Your task to perform on an android device: open app "Lyft - Rideshare, Bikes, Scooters & Transit" Image 0: 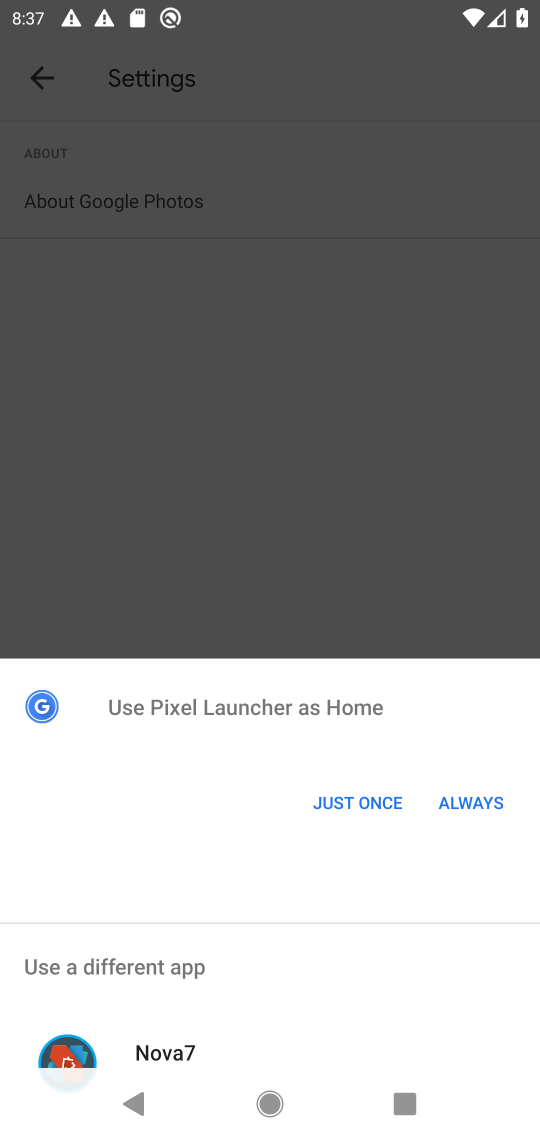
Step 0: click (350, 780)
Your task to perform on an android device: open app "Lyft - Rideshare, Bikes, Scooters & Transit" Image 1: 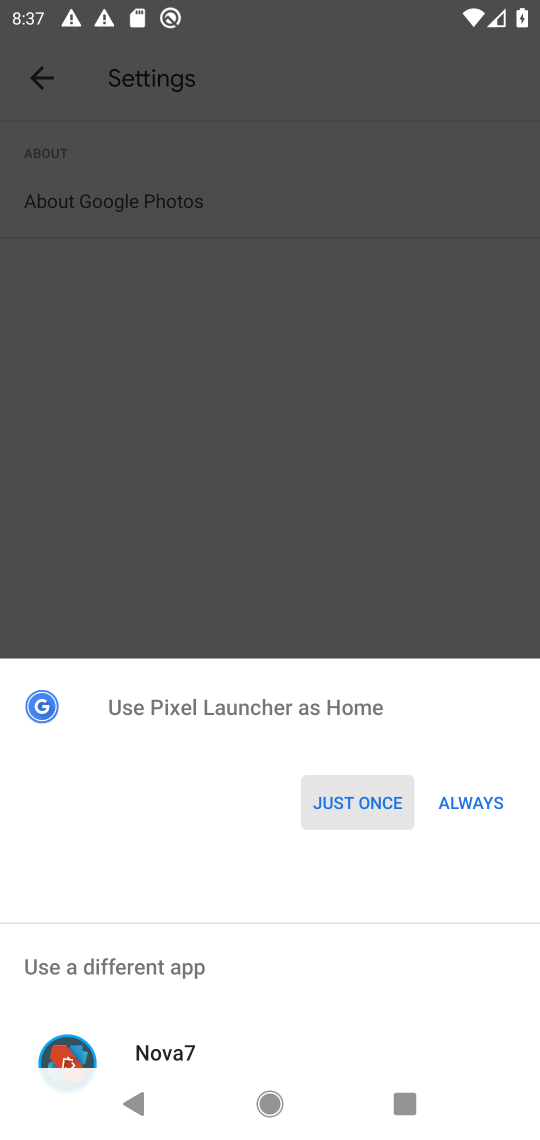
Step 1: click (354, 792)
Your task to perform on an android device: open app "Lyft - Rideshare, Bikes, Scooters & Transit" Image 2: 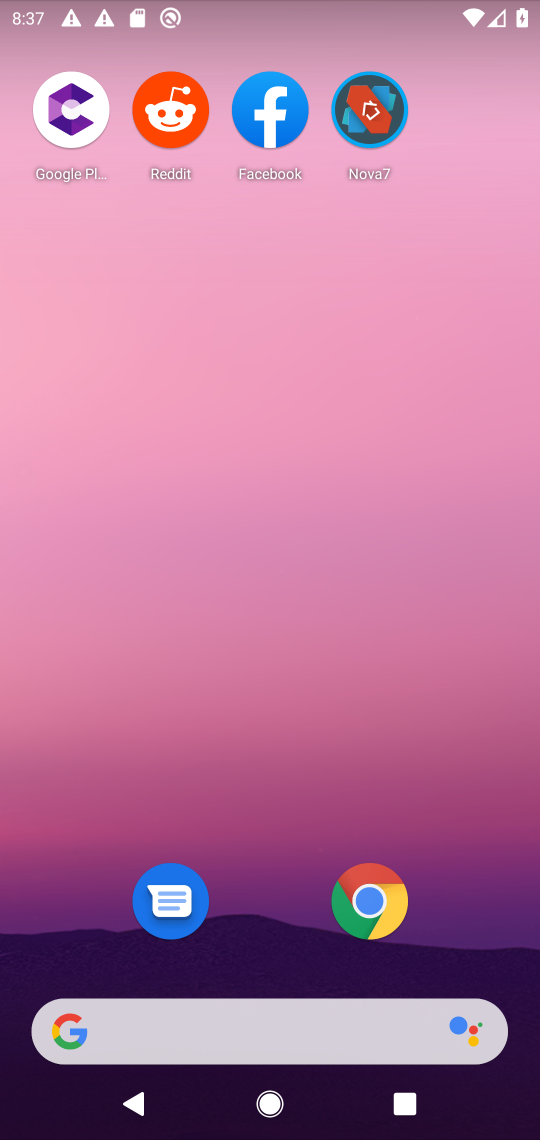
Step 2: drag from (255, 940) to (123, 100)
Your task to perform on an android device: open app "Lyft - Rideshare, Bikes, Scooters & Transit" Image 3: 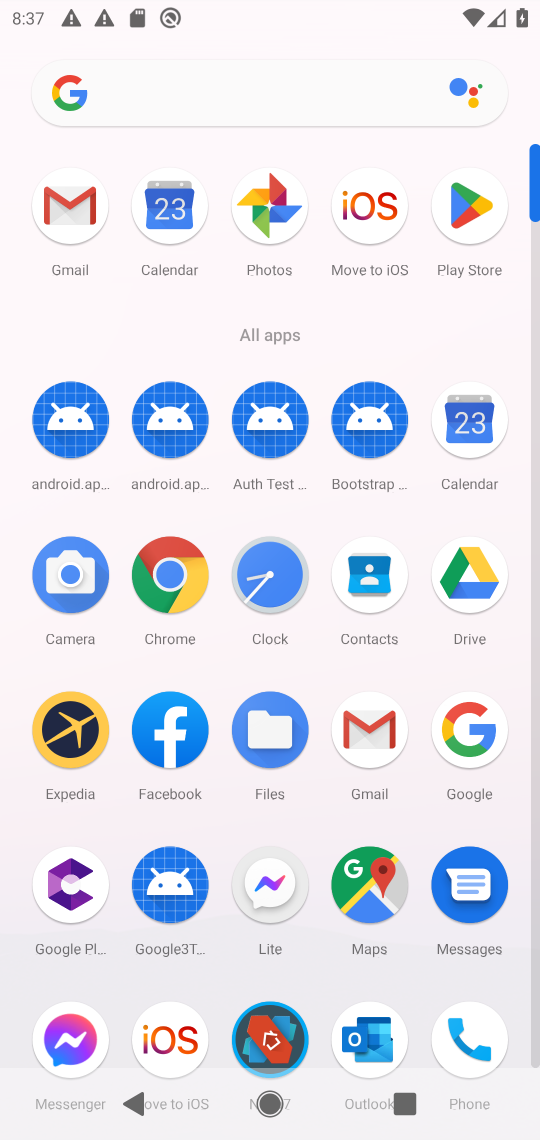
Step 3: click (461, 213)
Your task to perform on an android device: open app "Lyft - Rideshare, Bikes, Scooters & Transit" Image 4: 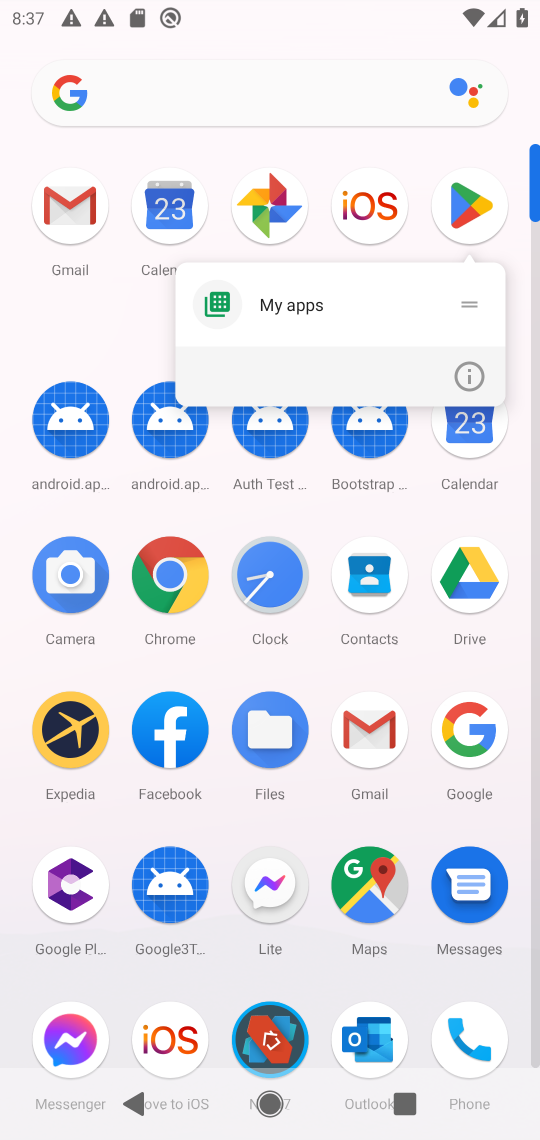
Step 4: click (461, 211)
Your task to perform on an android device: open app "Lyft - Rideshare, Bikes, Scooters & Transit" Image 5: 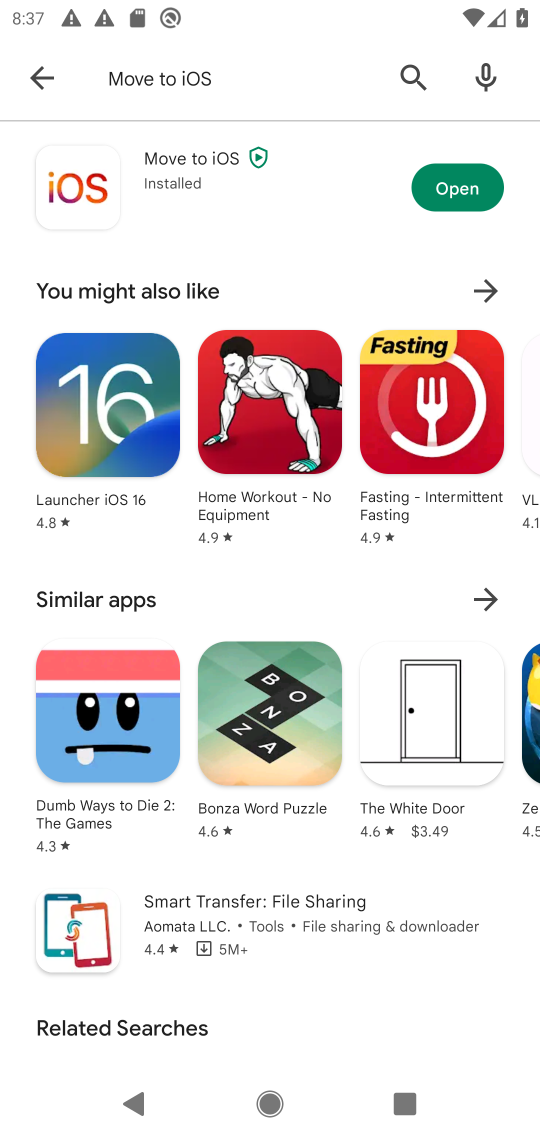
Step 5: click (461, 211)
Your task to perform on an android device: open app "Lyft - Rideshare, Bikes, Scooters & Transit" Image 6: 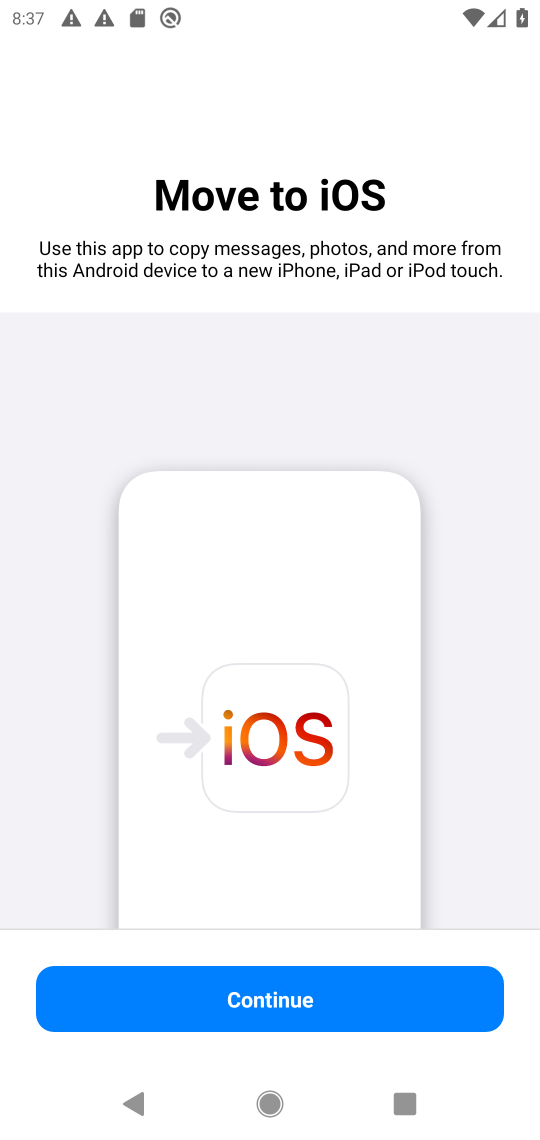
Step 6: press back button
Your task to perform on an android device: open app "Lyft - Rideshare, Bikes, Scooters & Transit" Image 7: 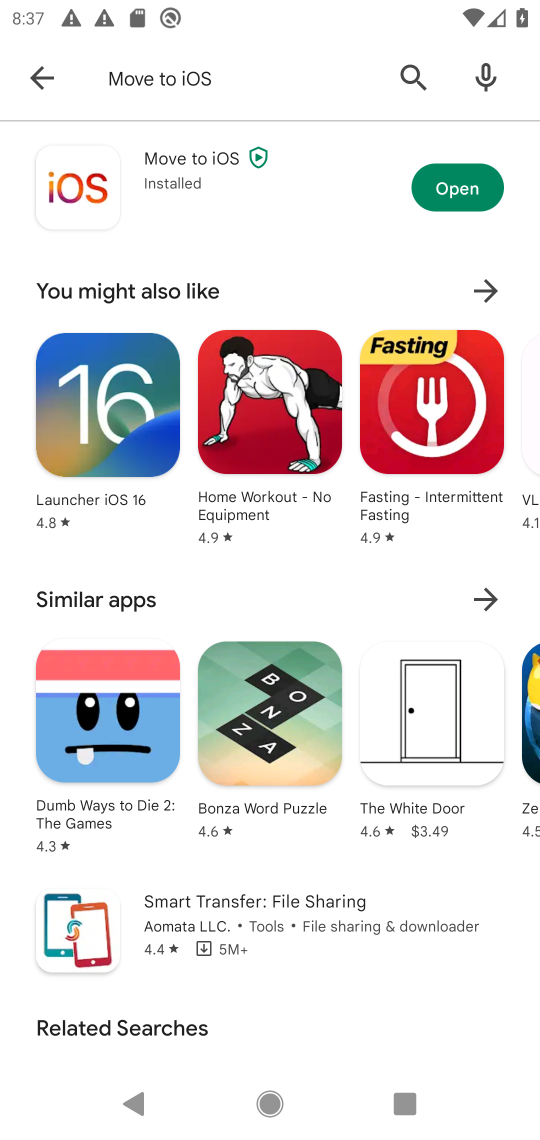
Step 7: press back button
Your task to perform on an android device: open app "Lyft - Rideshare, Bikes, Scooters & Transit" Image 8: 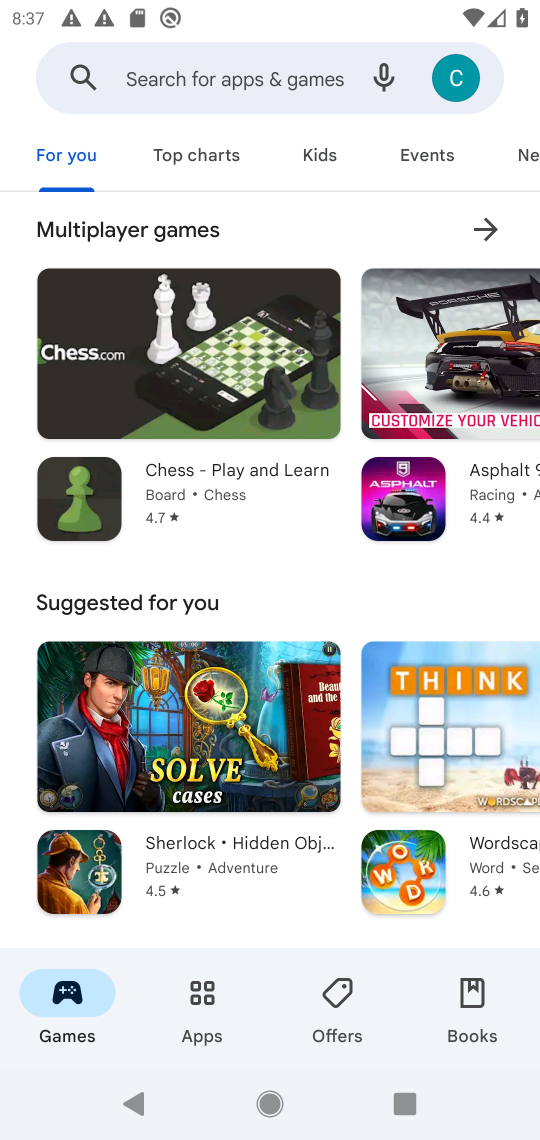
Step 8: click (240, 88)
Your task to perform on an android device: open app "Lyft - Rideshare, Bikes, Scooters & Transit" Image 9: 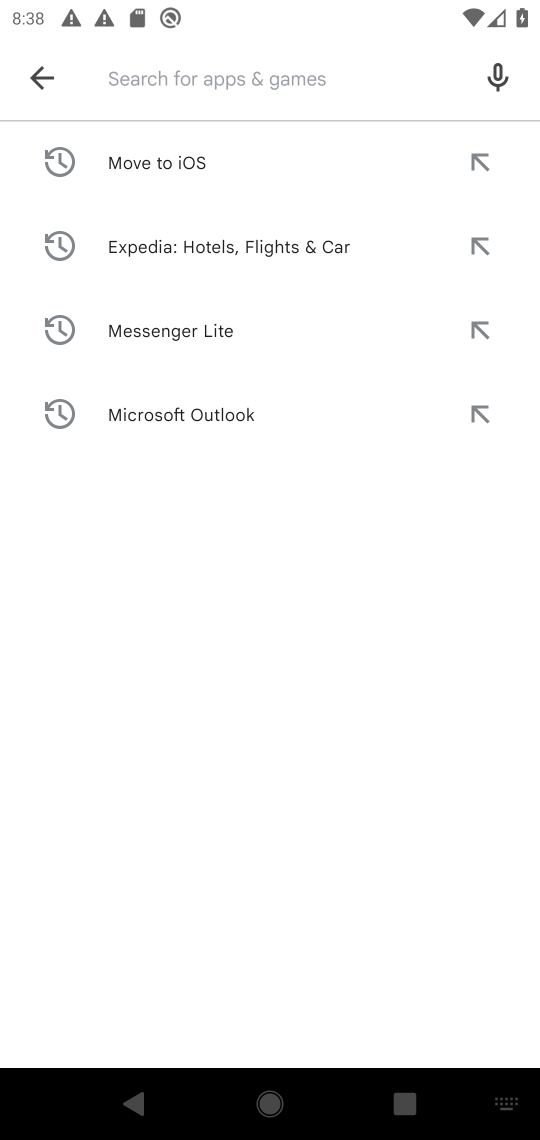
Step 9: type "Lyft - Rideshare, Bikes, Scooters & Transit"
Your task to perform on an android device: open app "Lyft - Rideshare, Bikes, Scooters & Transit" Image 10: 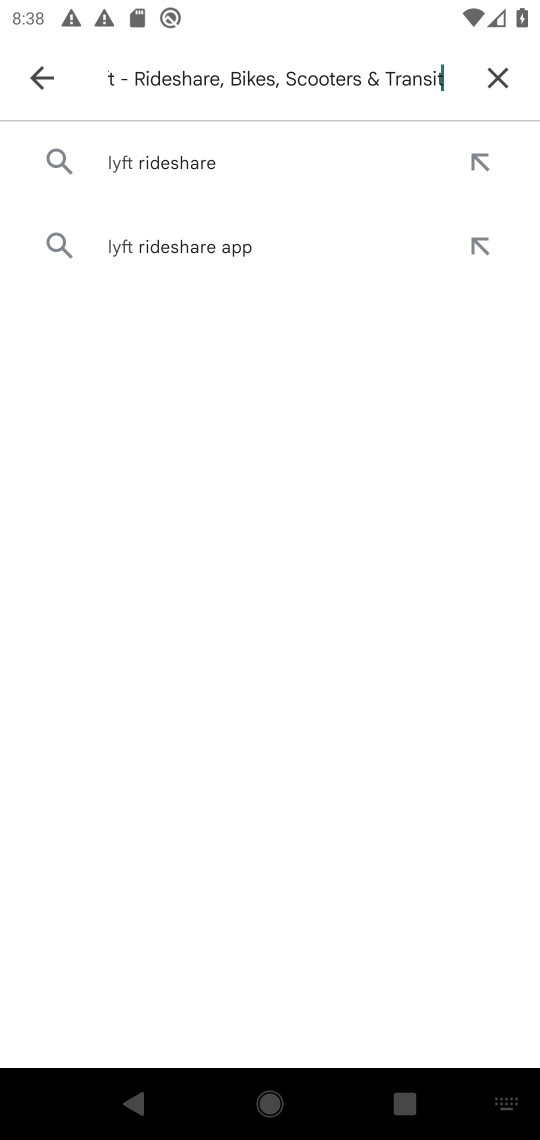
Step 10: press enter
Your task to perform on an android device: open app "Lyft - Rideshare, Bikes, Scooters & Transit" Image 11: 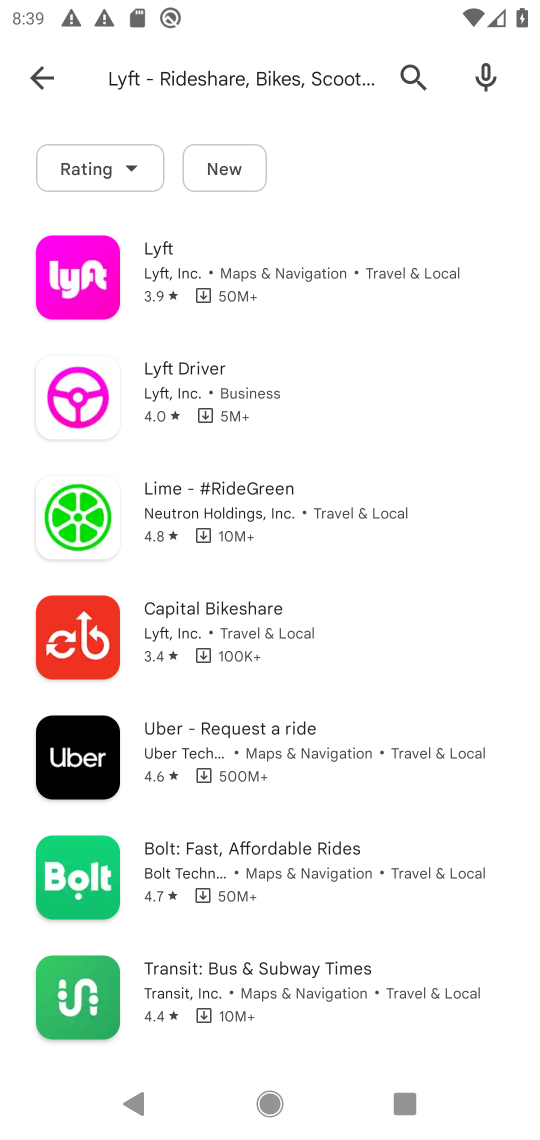
Step 11: click (234, 285)
Your task to perform on an android device: open app "Lyft - Rideshare, Bikes, Scooters & Transit" Image 12: 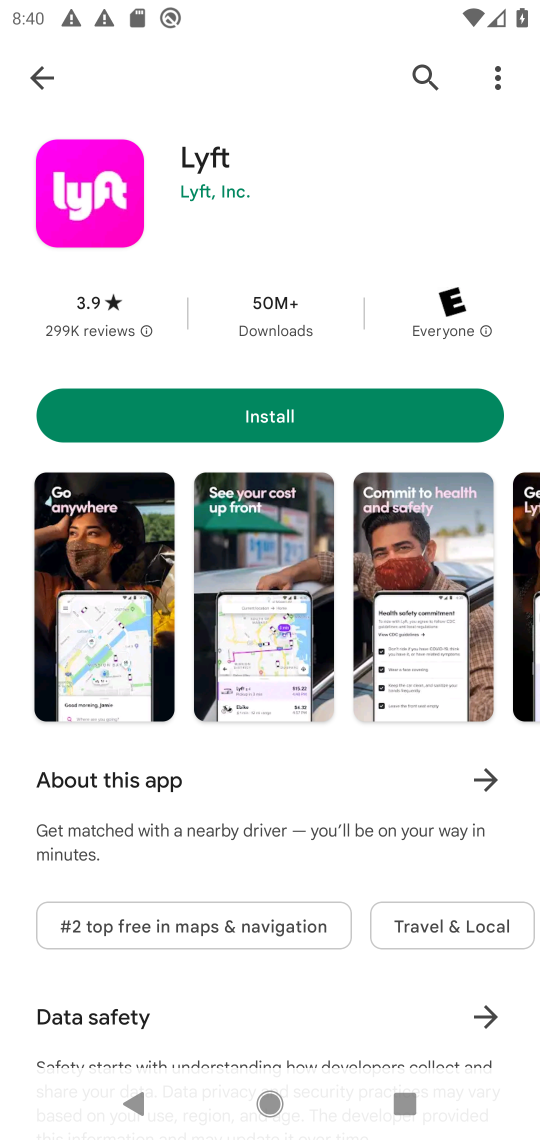
Step 12: task complete